Your task to perform on an android device: open device folders in google photos Image 0: 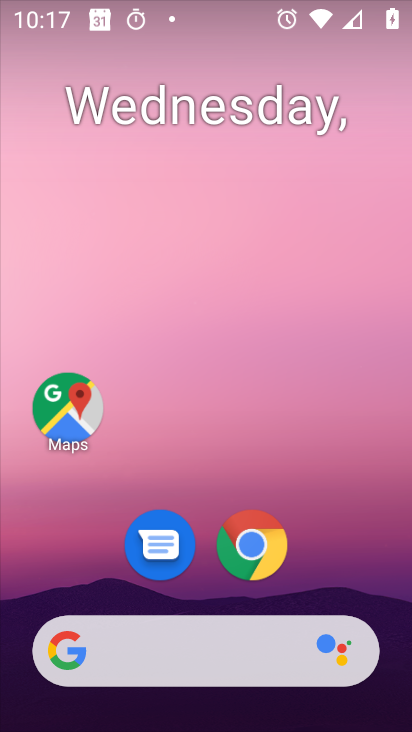
Step 0: press home button
Your task to perform on an android device: open device folders in google photos Image 1: 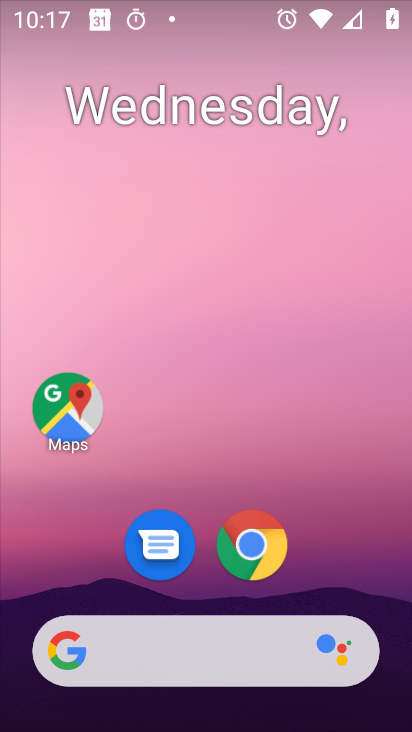
Step 1: drag from (183, 658) to (313, 93)
Your task to perform on an android device: open device folders in google photos Image 2: 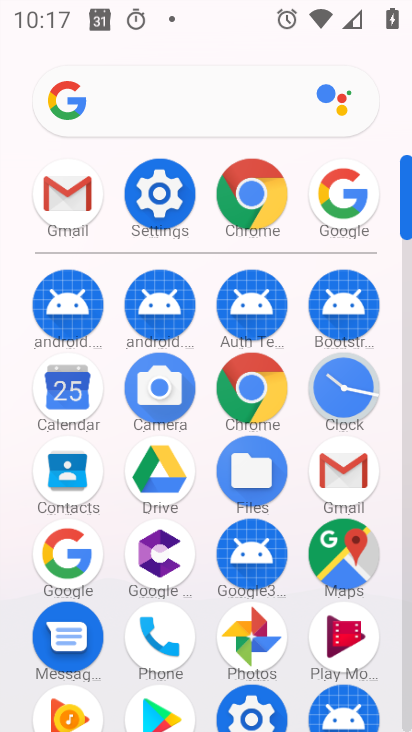
Step 2: click (255, 638)
Your task to perform on an android device: open device folders in google photos Image 3: 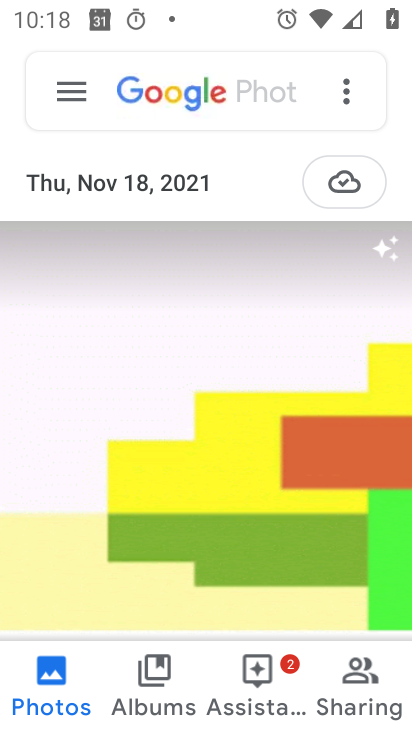
Step 3: click (58, 92)
Your task to perform on an android device: open device folders in google photos Image 4: 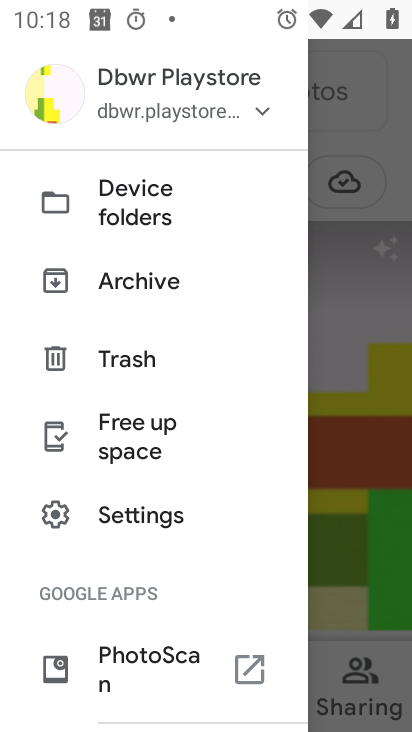
Step 4: click (128, 210)
Your task to perform on an android device: open device folders in google photos Image 5: 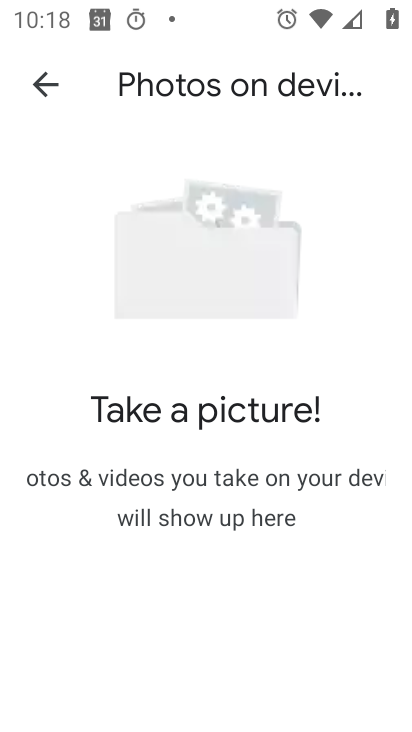
Step 5: task complete